Your task to perform on an android device: see tabs open on other devices in the chrome app Image 0: 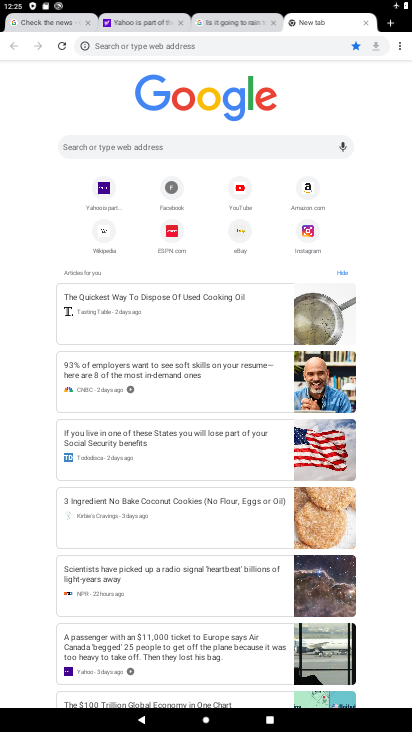
Step 0: click (404, 46)
Your task to perform on an android device: see tabs open on other devices in the chrome app Image 1: 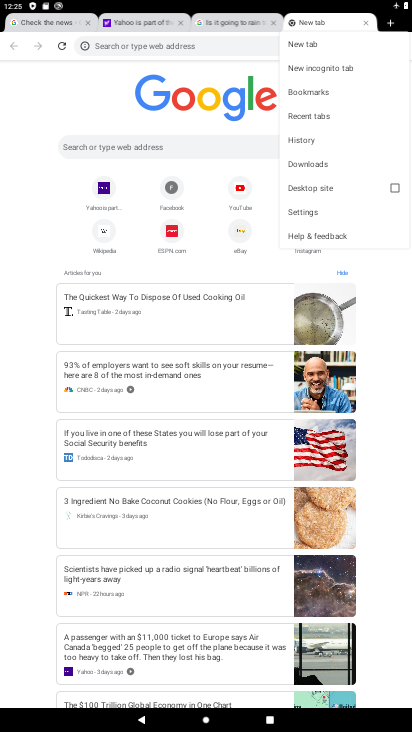
Step 1: click (302, 132)
Your task to perform on an android device: see tabs open on other devices in the chrome app Image 2: 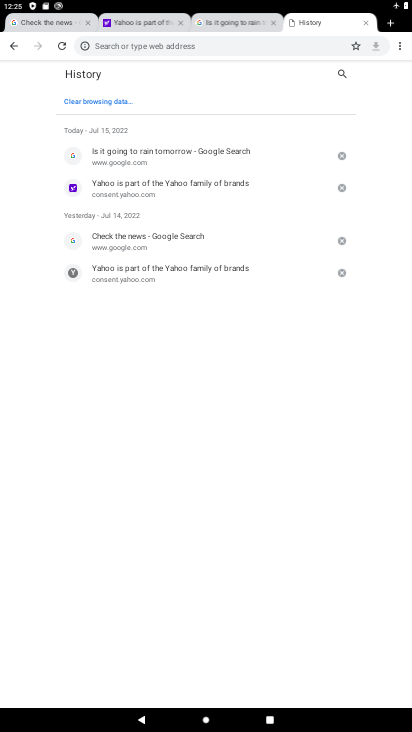
Step 2: task complete